Your task to perform on an android device: change the upload size in google photos Image 0: 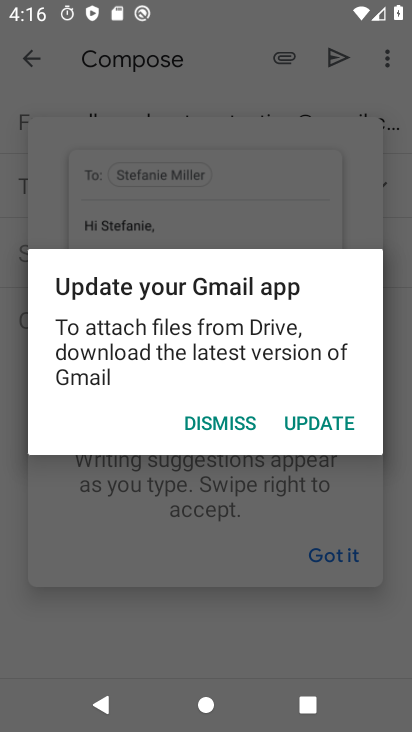
Step 0: press home button
Your task to perform on an android device: change the upload size in google photos Image 1: 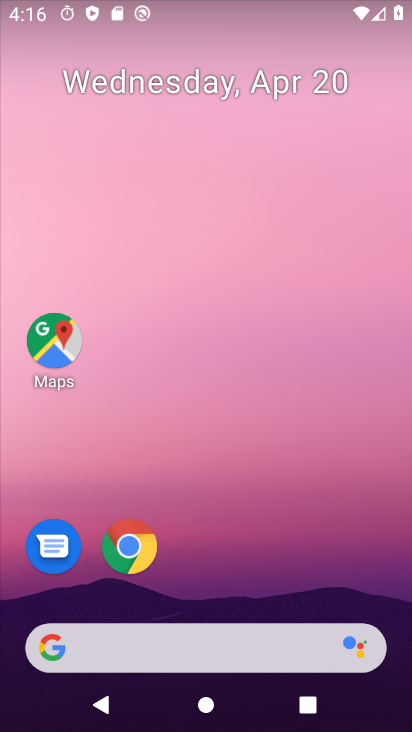
Step 1: drag from (300, 552) to (277, 123)
Your task to perform on an android device: change the upload size in google photos Image 2: 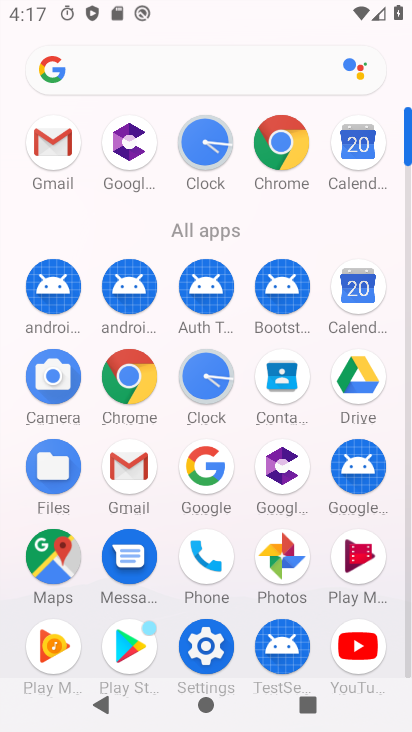
Step 2: click (282, 552)
Your task to perform on an android device: change the upload size in google photos Image 3: 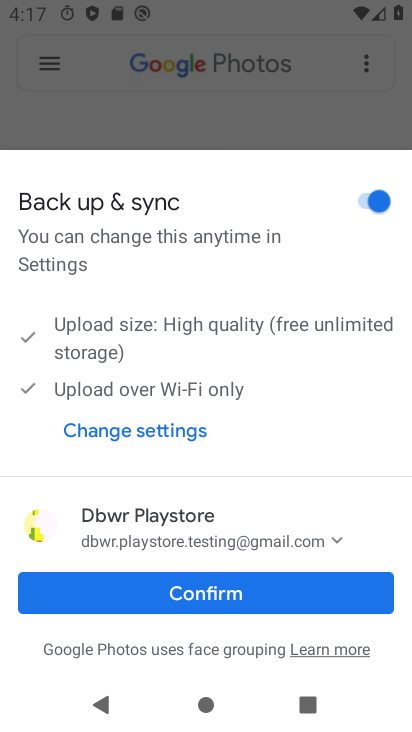
Step 3: click (282, 592)
Your task to perform on an android device: change the upload size in google photos Image 4: 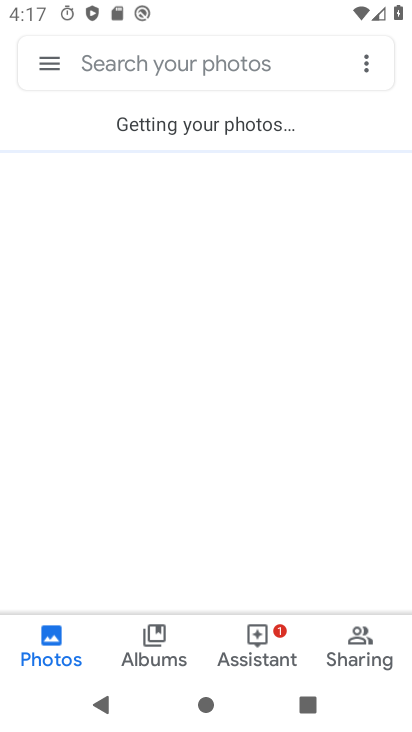
Step 4: click (54, 58)
Your task to perform on an android device: change the upload size in google photos Image 5: 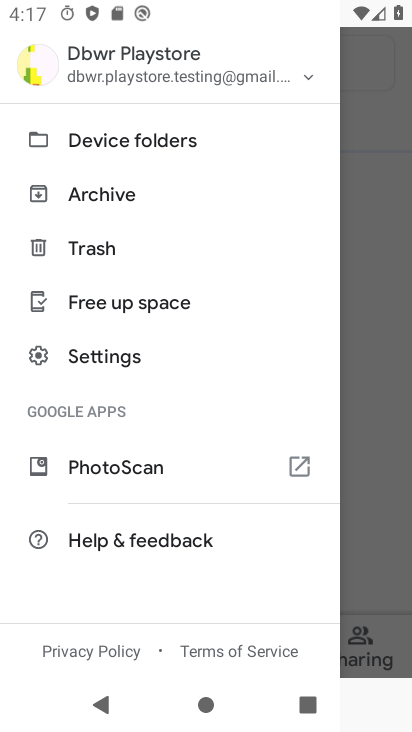
Step 5: click (142, 352)
Your task to perform on an android device: change the upload size in google photos Image 6: 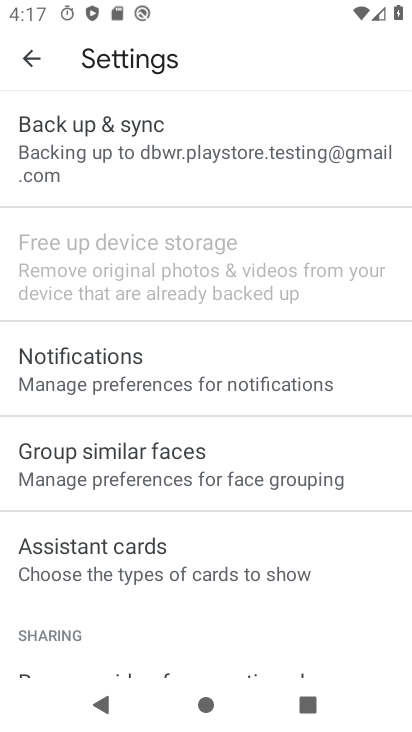
Step 6: click (183, 136)
Your task to perform on an android device: change the upload size in google photos Image 7: 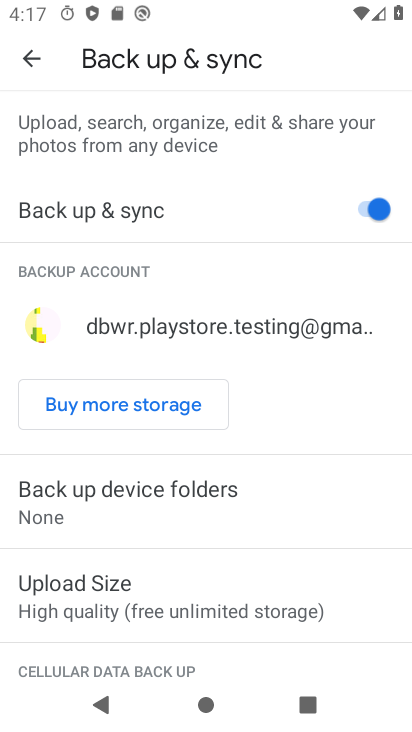
Step 7: click (210, 604)
Your task to perform on an android device: change the upload size in google photos Image 8: 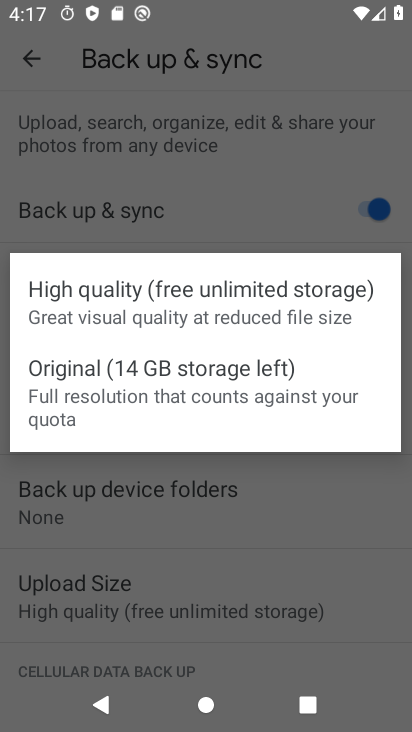
Step 8: click (239, 381)
Your task to perform on an android device: change the upload size in google photos Image 9: 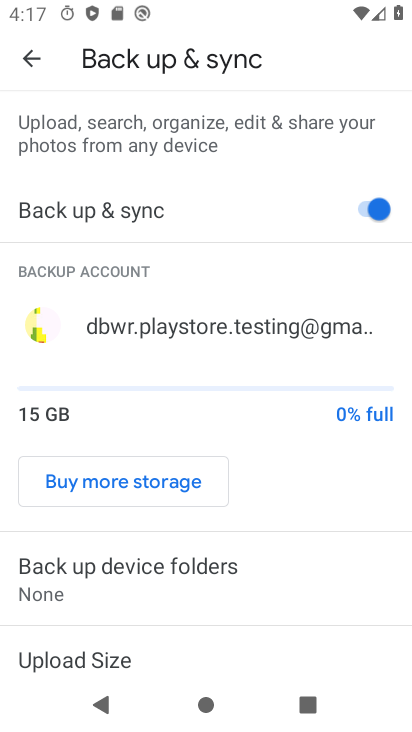
Step 9: task complete